Your task to perform on an android device: open device folders in google photos Image 0: 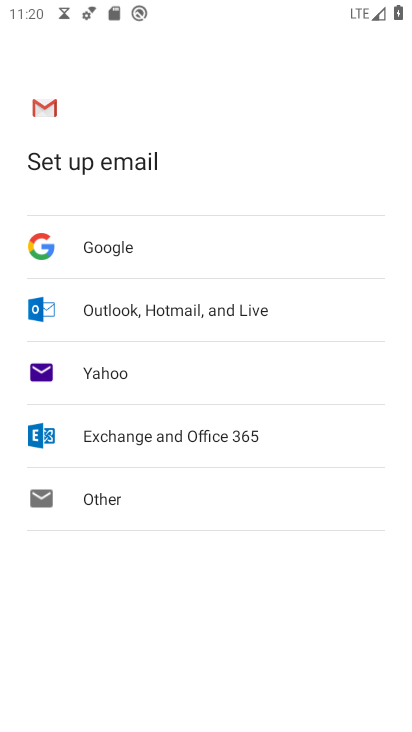
Step 0: press home button
Your task to perform on an android device: open device folders in google photos Image 1: 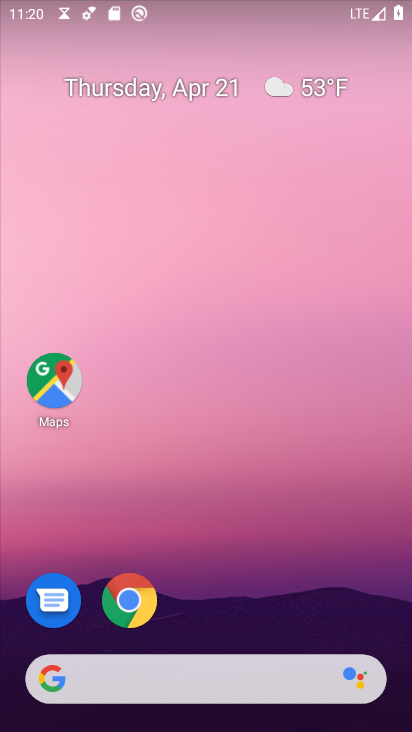
Step 1: drag from (219, 578) to (186, 63)
Your task to perform on an android device: open device folders in google photos Image 2: 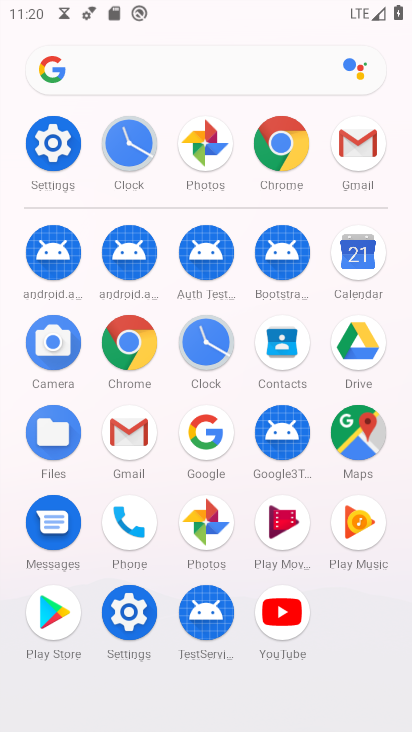
Step 2: click (209, 165)
Your task to perform on an android device: open device folders in google photos Image 3: 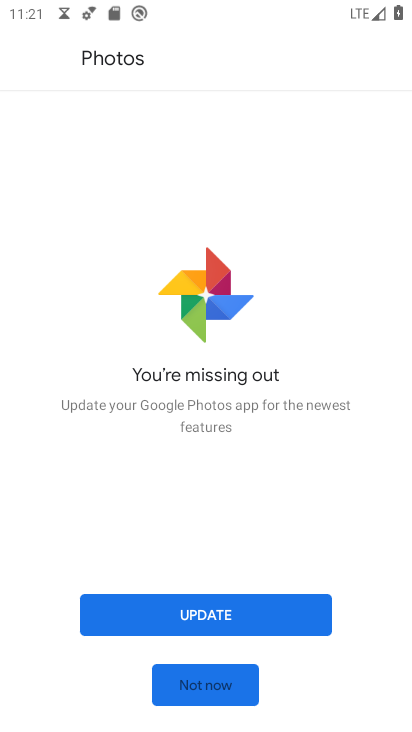
Step 3: click (224, 687)
Your task to perform on an android device: open device folders in google photos Image 4: 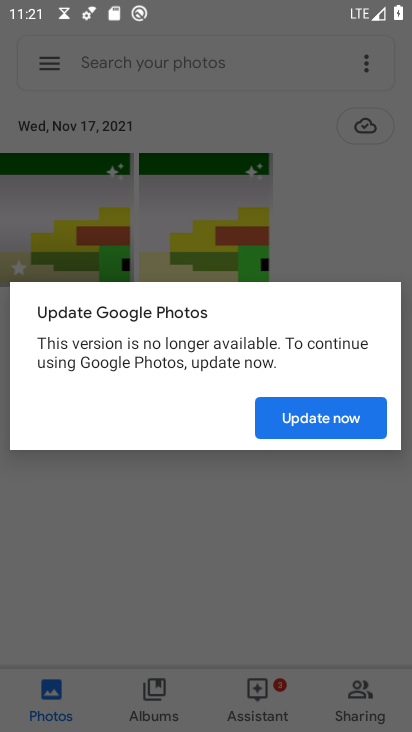
Step 4: click (308, 413)
Your task to perform on an android device: open device folders in google photos Image 5: 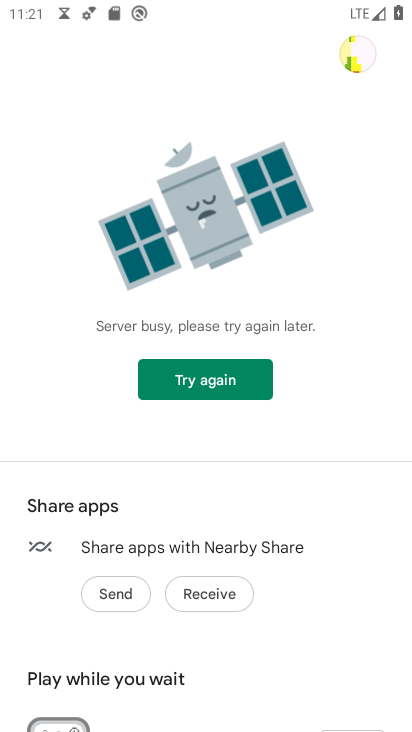
Step 5: click (207, 371)
Your task to perform on an android device: open device folders in google photos Image 6: 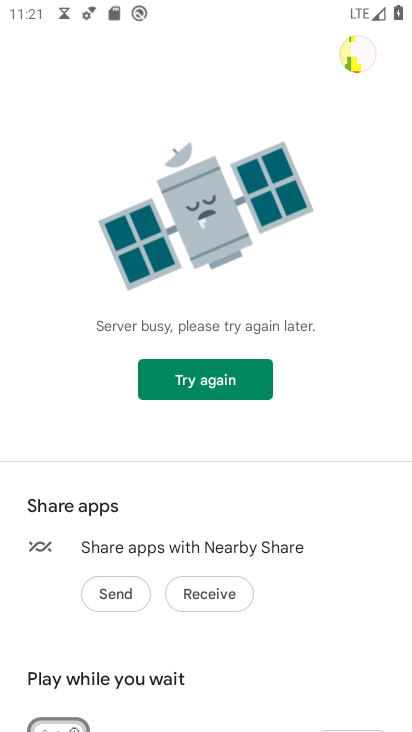
Step 6: task complete